Your task to perform on an android device: turn off location history Image 0: 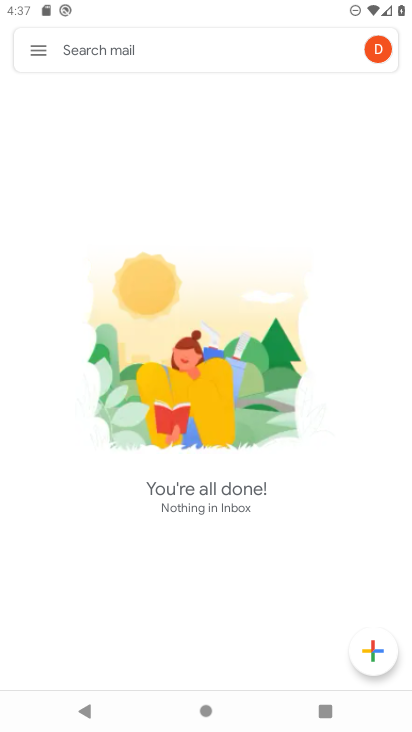
Step 0: press home button
Your task to perform on an android device: turn off location history Image 1: 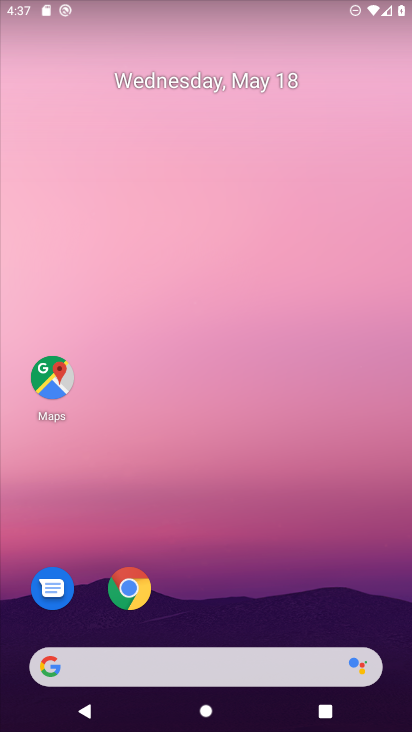
Step 1: drag from (263, 611) to (269, 154)
Your task to perform on an android device: turn off location history Image 2: 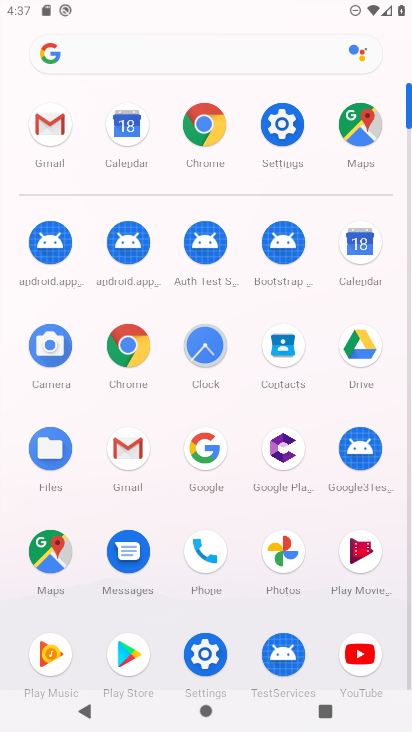
Step 2: click (222, 649)
Your task to perform on an android device: turn off location history Image 3: 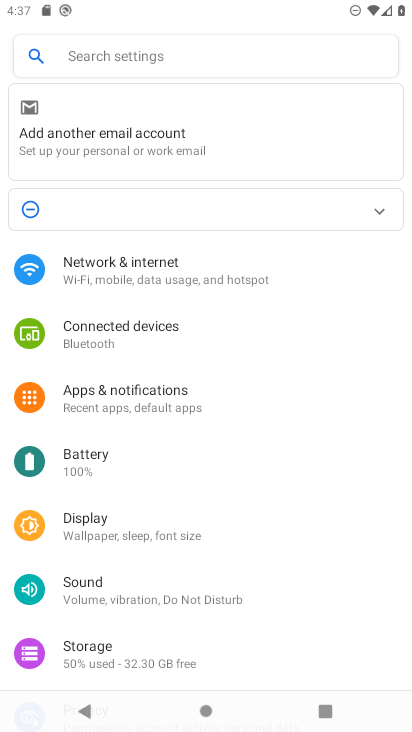
Step 3: drag from (167, 595) to (178, 245)
Your task to perform on an android device: turn off location history Image 4: 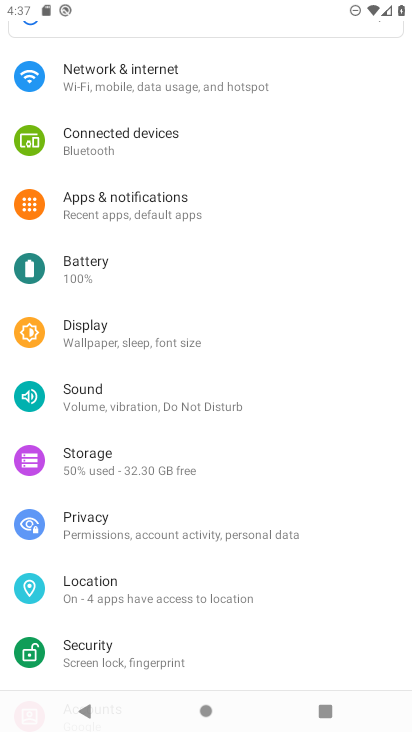
Step 4: click (136, 594)
Your task to perform on an android device: turn off location history Image 5: 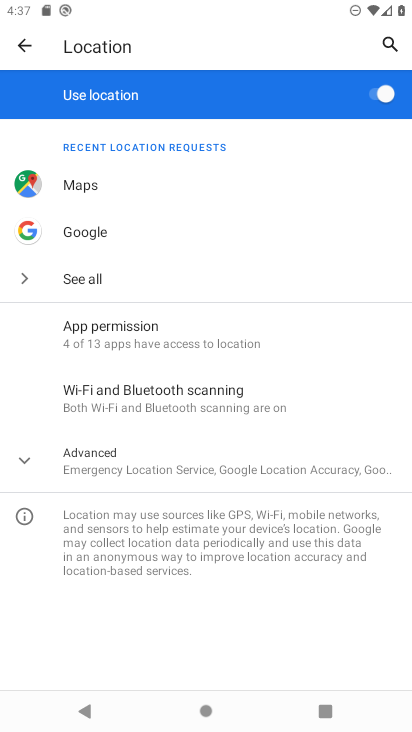
Step 5: click (194, 460)
Your task to perform on an android device: turn off location history Image 6: 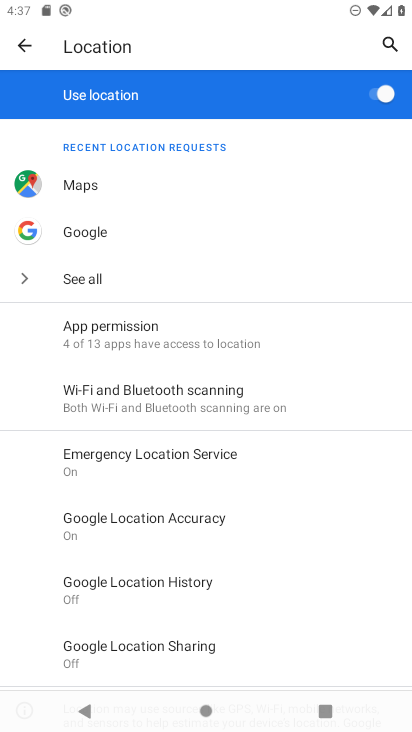
Step 6: click (167, 584)
Your task to perform on an android device: turn off location history Image 7: 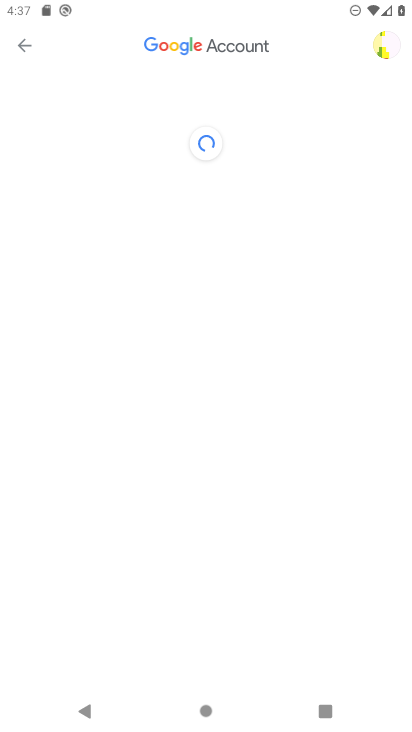
Step 7: task complete